Your task to perform on an android device: turn on translation in the chrome app Image 0: 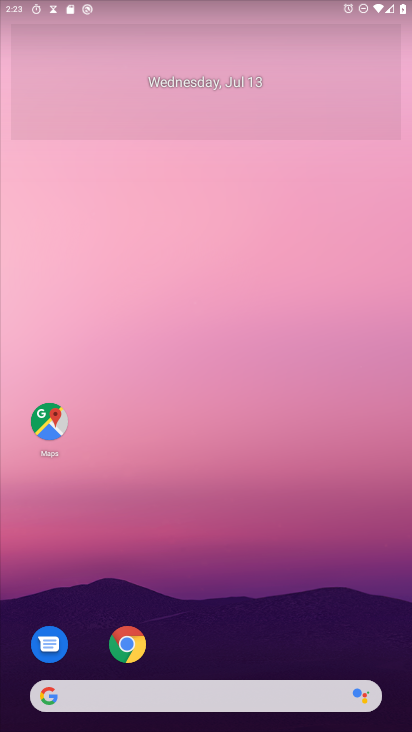
Step 0: press home button
Your task to perform on an android device: turn on translation in the chrome app Image 1: 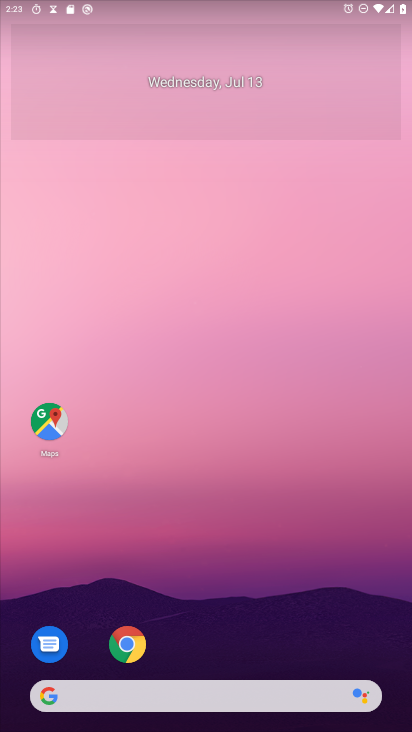
Step 1: click (123, 650)
Your task to perform on an android device: turn on translation in the chrome app Image 2: 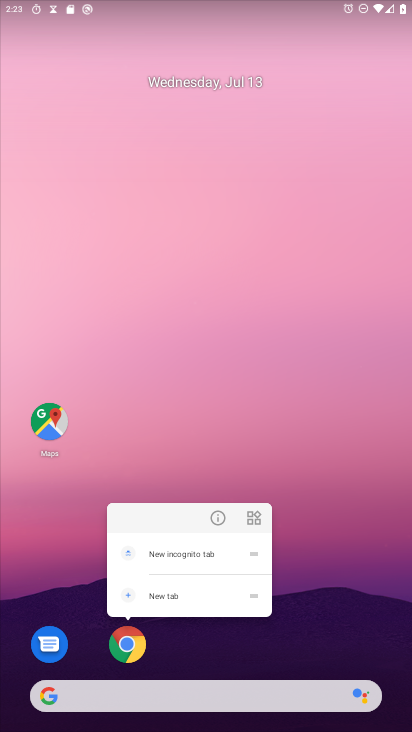
Step 2: click (119, 659)
Your task to perform on an android device: turn on translation in the chrome app Image 3: 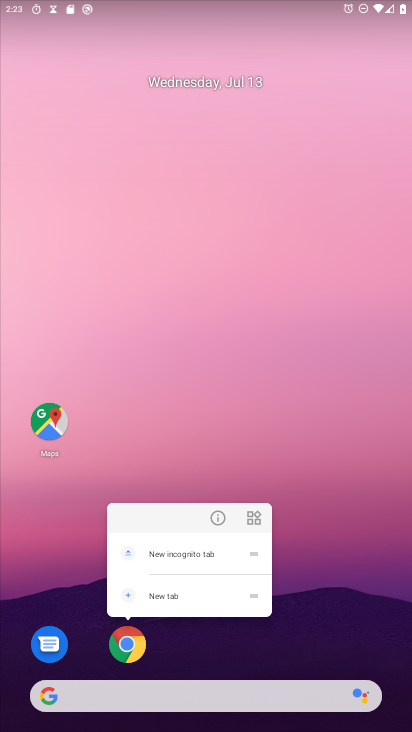
Step 3: click (129, 647)
Your task to perform on an android device: turn on translation in the chrome app Image 4: 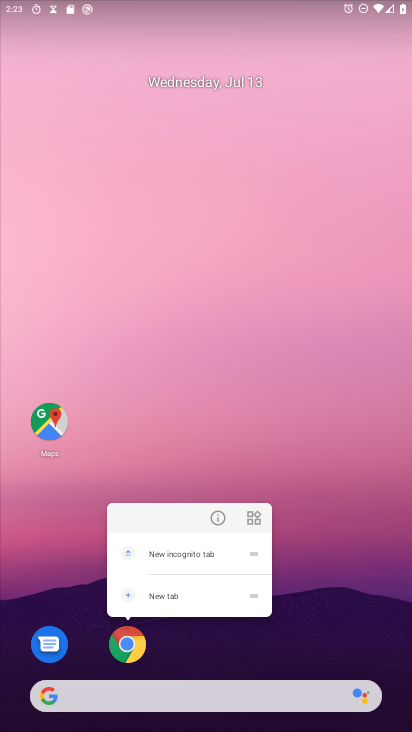
Step 4: click (127, 647)
Your task to perform on an android device: turn on translation in the chrome app Image 5: 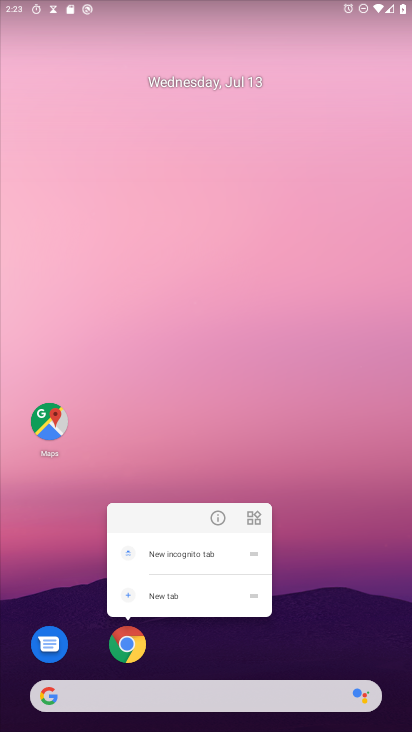
Step 5: click (137, 649)
Your task to perform on an android device: turn on translation in the chrome app Image 6: 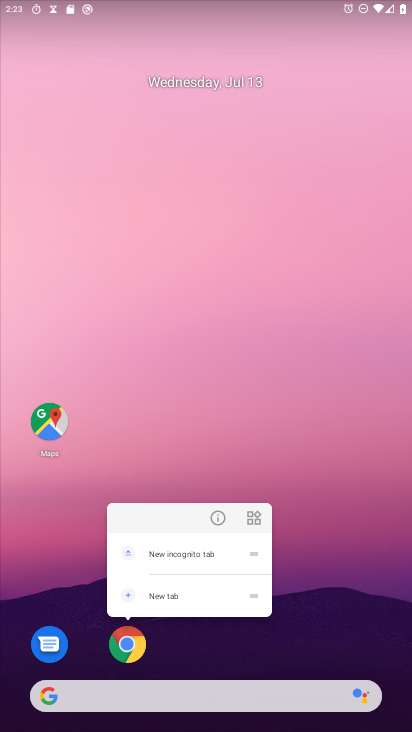
Step 6: click (250, 383)
Your task to perform on an android device: turn on translation in the chrome app Image 7: 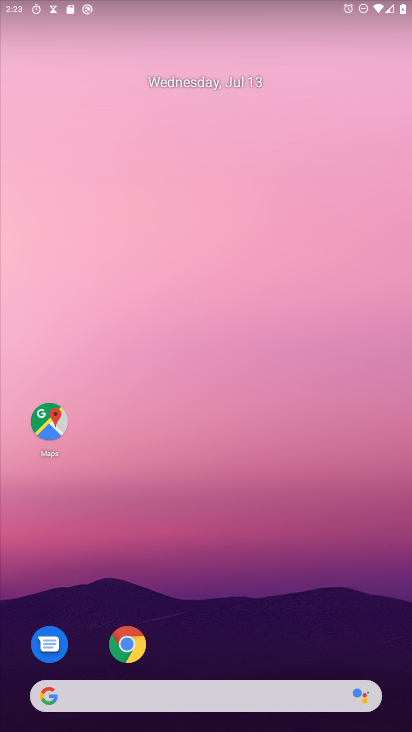
Step 7: click (130, 644)
Your task to perform on an android device: turn on translation in the chrome app Image 8: 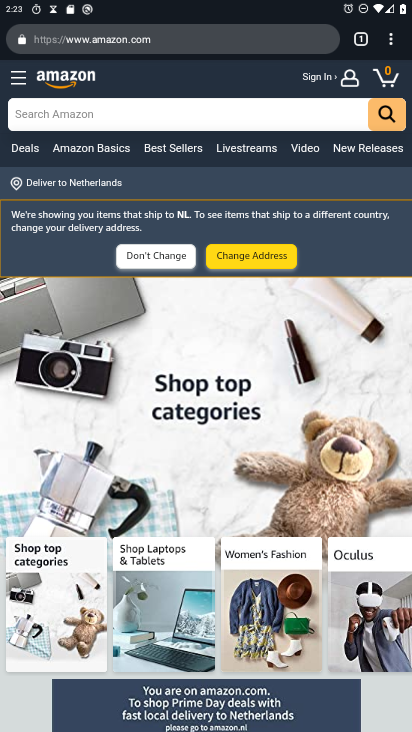
Step 8: drag from (380, 37) to (259, 465)
Your task to perform on an android device: turn on translation in the chrome app Image 9: 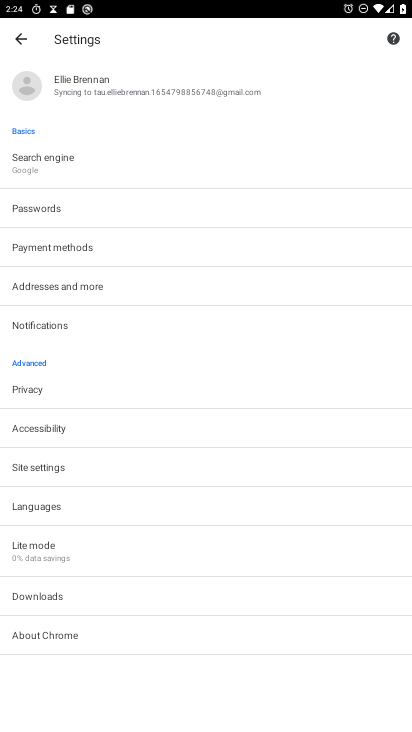
Step 9: click (32, 510)
Your task to perform on an android device: turn on translation in the chrome app Image 10: 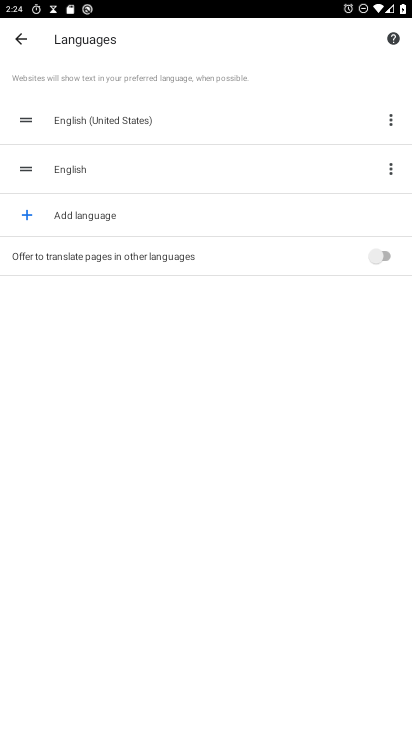
Step 10: click (388, 254)
Your task to perform on an android device: turn on translation in the chrome app Image 11: 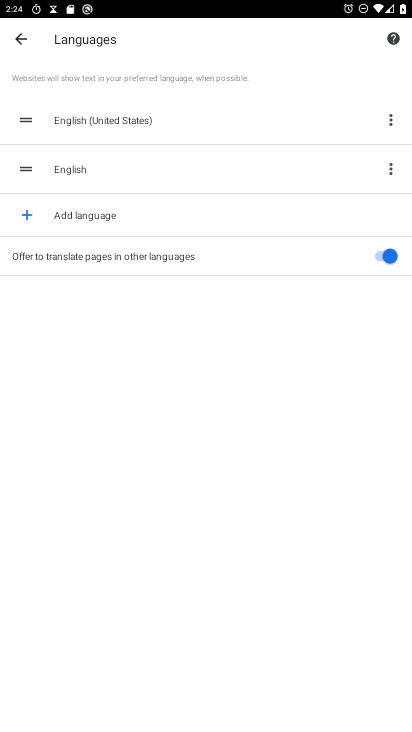
Step 11: task complete